Your task to perform on an android device: choose inbox layout in the gmail app Image 0: 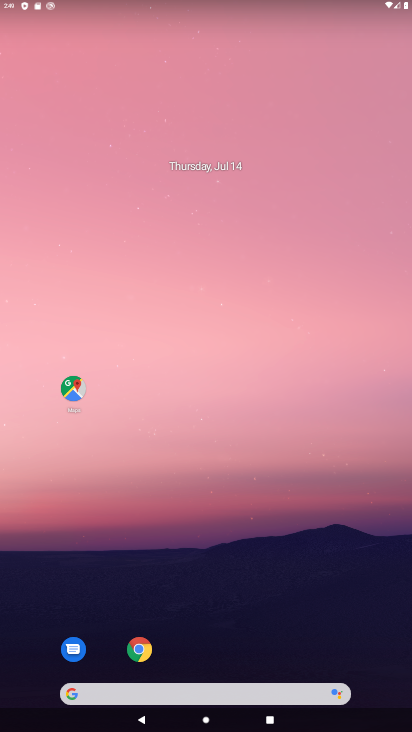
Step 0: drag from (201, 667) to (233, 174)
Your task to perform on an android device: choose inbox layout in the gmail app Image 1: 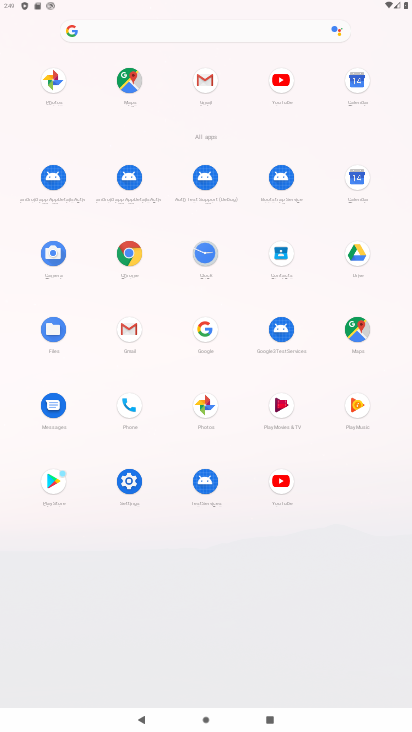
Step 1: click (125, 329)
Your task to perform on an android device: choose inbox layout in the gmail app Image 2: 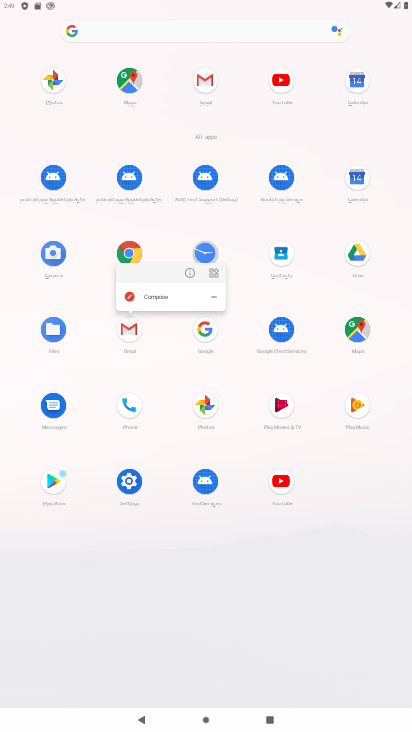
Step 2: click (132, 330)
Your task to perform on an android device: choose inbox layout in the gmail app Image 3: 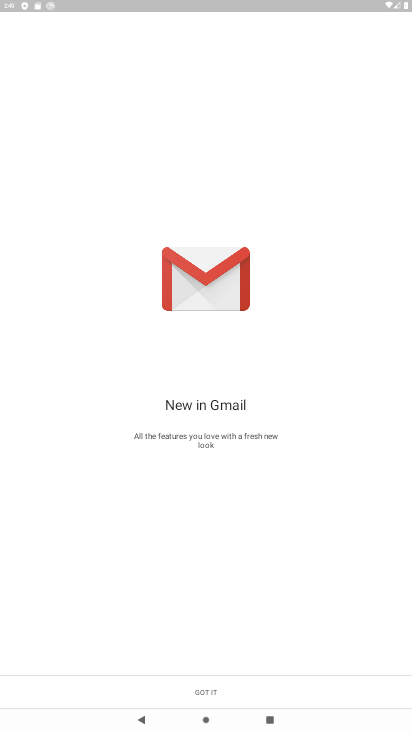
Step 3: click (211, 693)
Your task to perform on an android device: choose inbox layout in the gmail app Image 4: 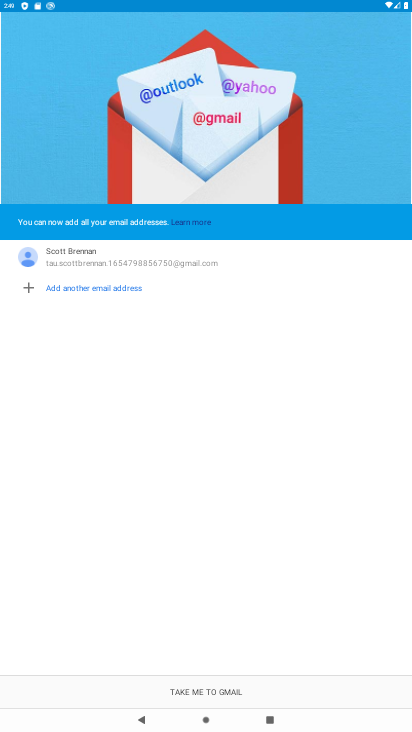
Step 4: click (213, 686)
Your task to perform on an android device: choose inbox layout in the gmail app Image 5: 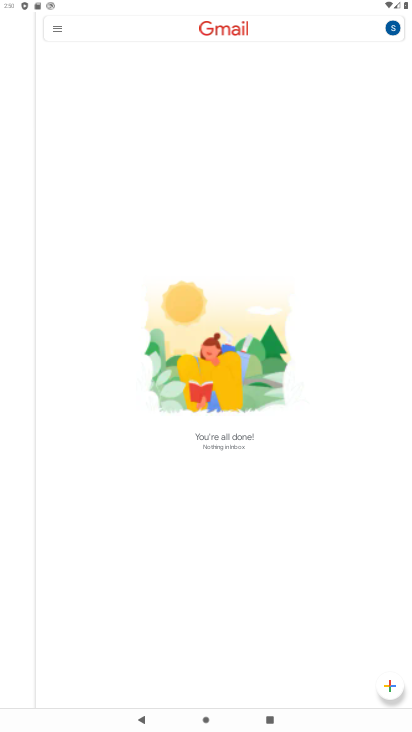
Step 5: click (54, 30)
Your task to perform on an android device: choose inbox layout in the gmail app Image 6: 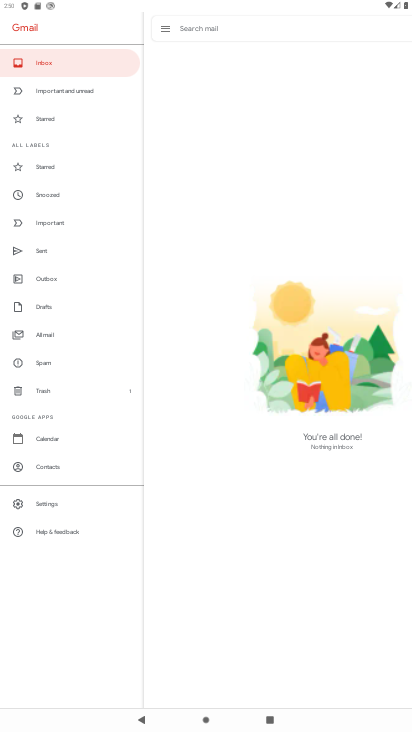
Step 6: click (39, 504)
Your task to perform on an android device: choose inbox layout in the gmail app Image 7: 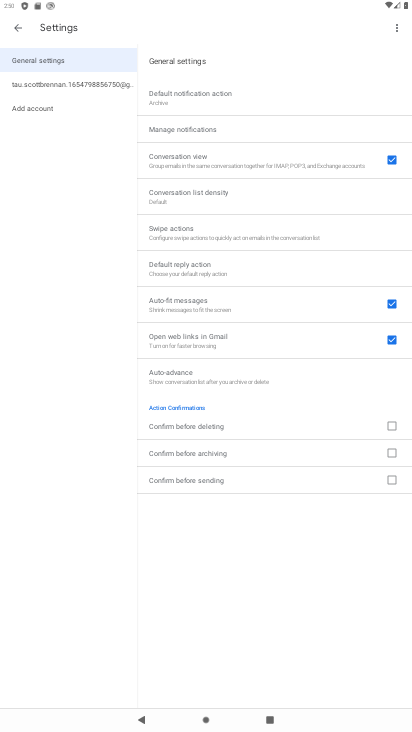
Step 7: click (77, 81)
Your task to perform on an android device: choose inbox layout in the gmail app Image 8: 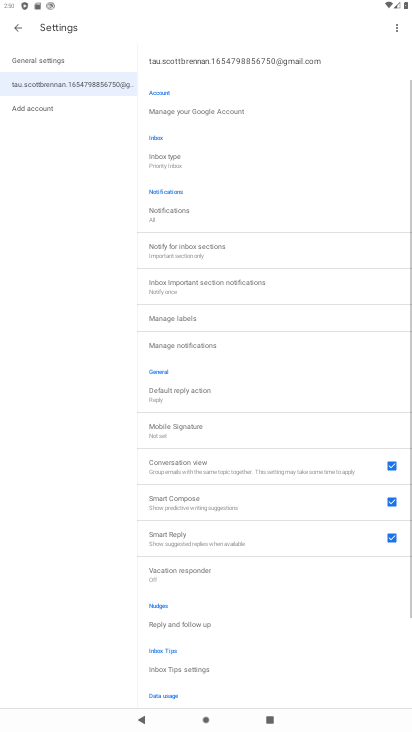
Step 8: click (175, 164)
Your task to perform on an android device: choose inbox layout in the gmail app Image 9: 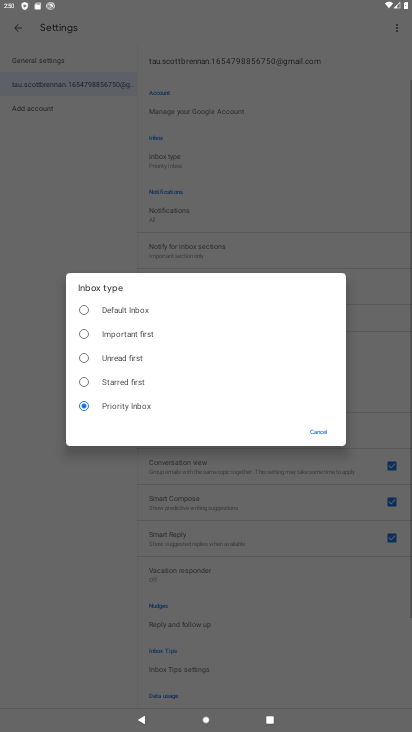
Step 9: click (95, 306)
Your task to perform on an android device: choose inbox layout in the gmail app Image 10: 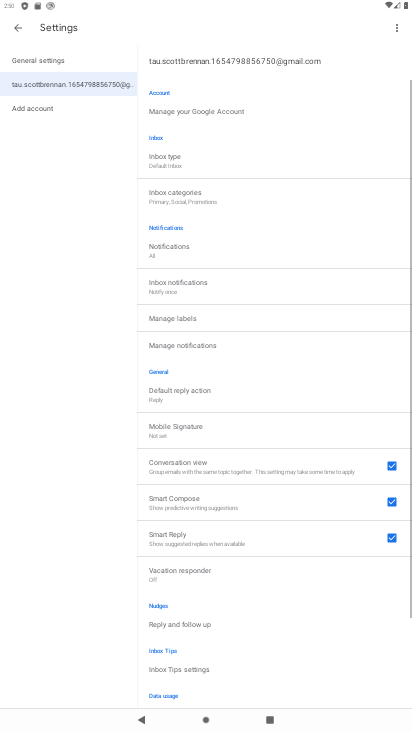
Step 10: task complete